Your task to perform on an android device: Open Youtube and go to "Your channel" Image 0: 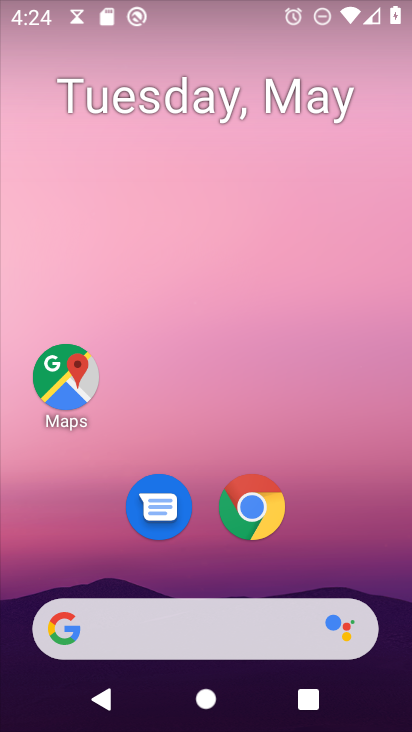
Step 0: drag from (318, 567) to (253, 71)
Your task to perform on an android device: Open Youtube and go to "Your channel" Image 1: 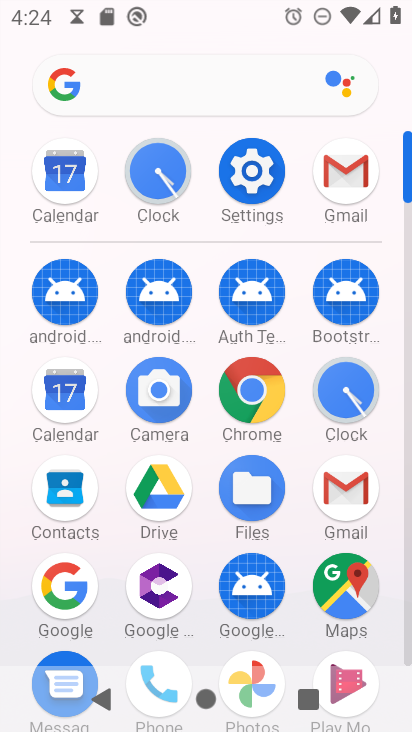
Step 1: drag from (300, 615) to (249, 266)
Your task to perform on an android device: Open Youtube and go to "Your channel" Image 2: 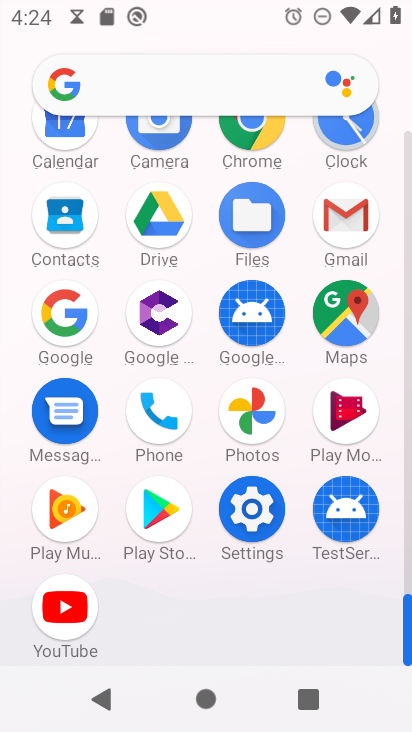
Step 2: click (56, 613)
Your task to perform on an android device: Open Youtube and go to "Your channel" Image 3: 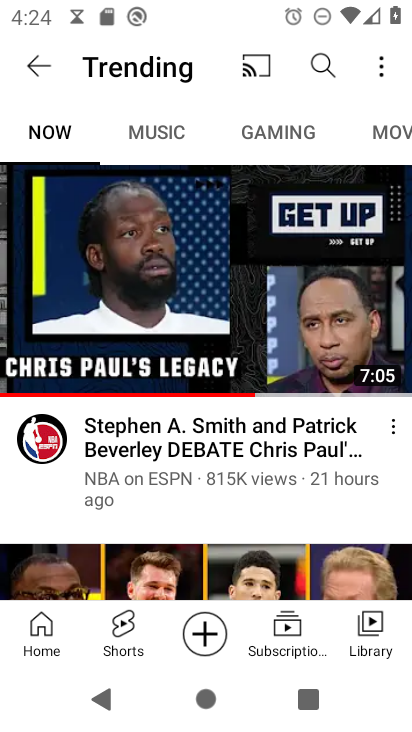
Step 3: click (372, 631)
Your task to perform on an android device: Open Youtube and go to "Your channel" Image 4: 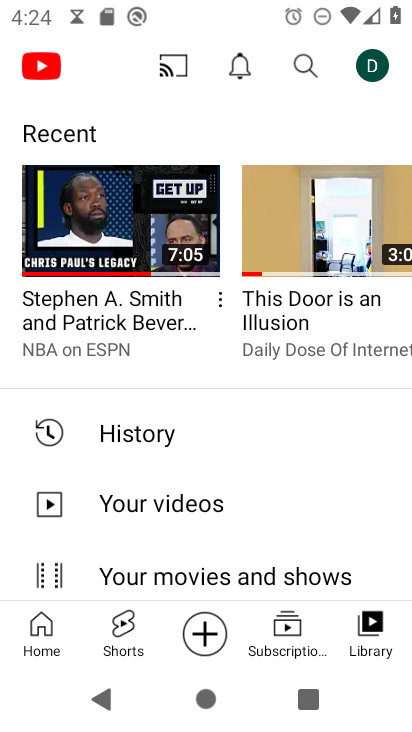
Step 4: click (382, 58)
Your task to perform on an android device: Open Youtube and go to "Your channel" Image 5: 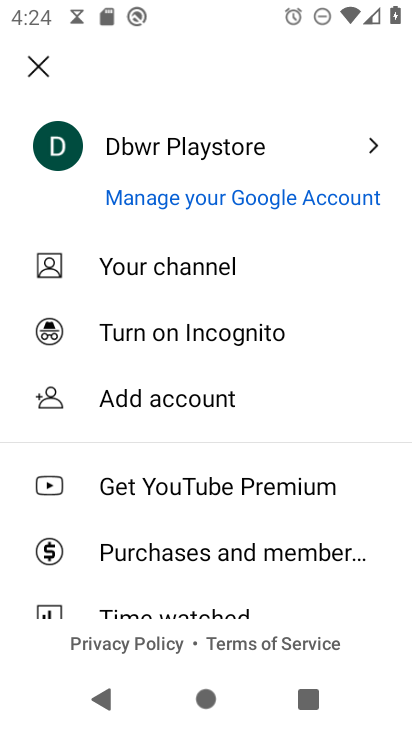
Step 5: click (103, 255)
Your task to perform on an android device: Open Youtube and go to "Your channel" Image 6: 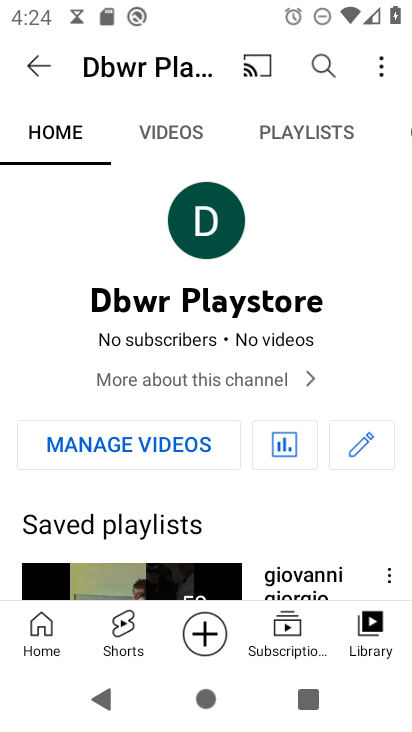
Step 6: task complete